Your task to perform on an android device: change the upload size in google photos Image 0: 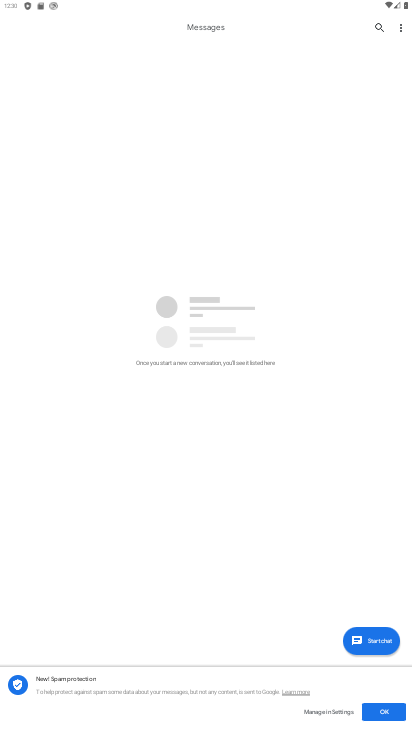
Step 0: press home button
Your task to perform on an android device: change the upload size in google photos Image 1: 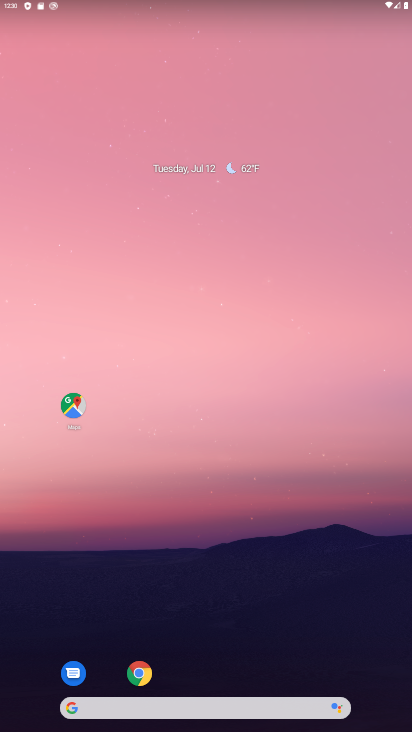
Step 1: drag from (197, 681) to (234, 207)
Your task to perform on an android device: change the upload size in google photos Image 2: 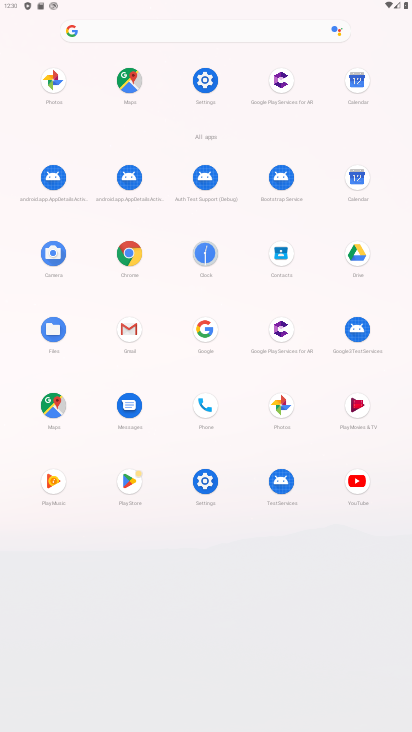
Step 2: click (278, 407)
Your task to perform on an android device: change the upload size in google photos Image 3: 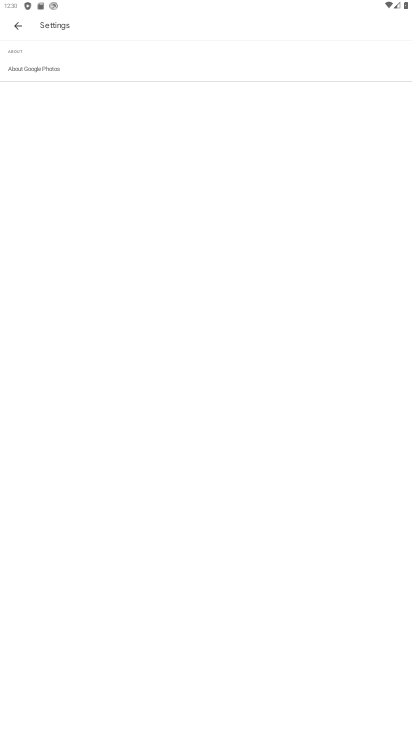
Step 3: click (17, 27)
Your task to perform on an android device: change the upload size in google photos Image 4: 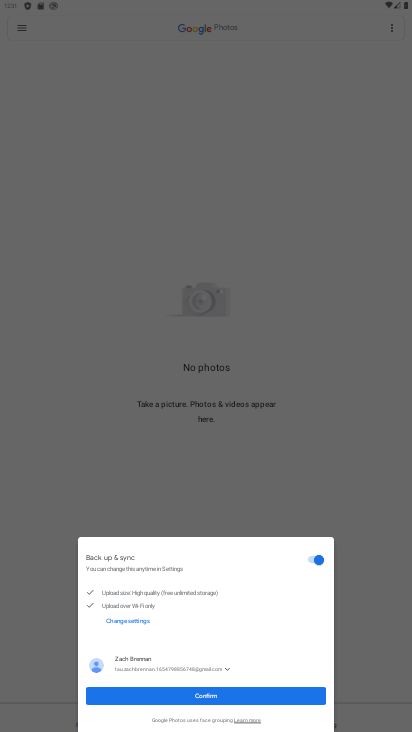
Step 4: click (211, 691)
Your task to perform on an android device: change the upload size in google photos Image 5: 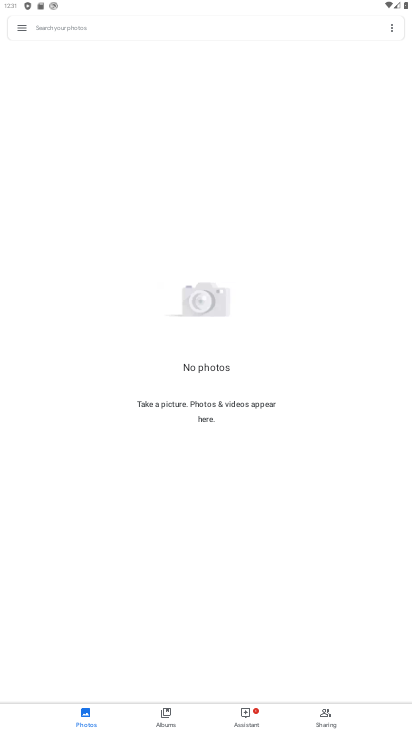
Step 5: click (24, 26)
Your task to perform on an android device: change the upload size in google photos Image 6: 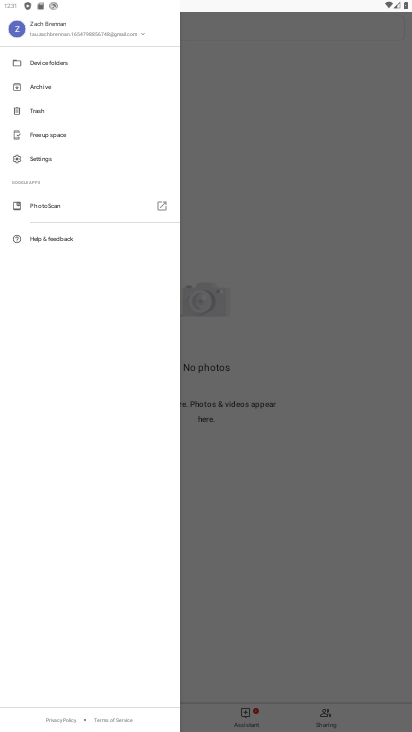
Step 6: click (54, 164)
Your task to perform on an android device: change the upload size in google photos Image 7: 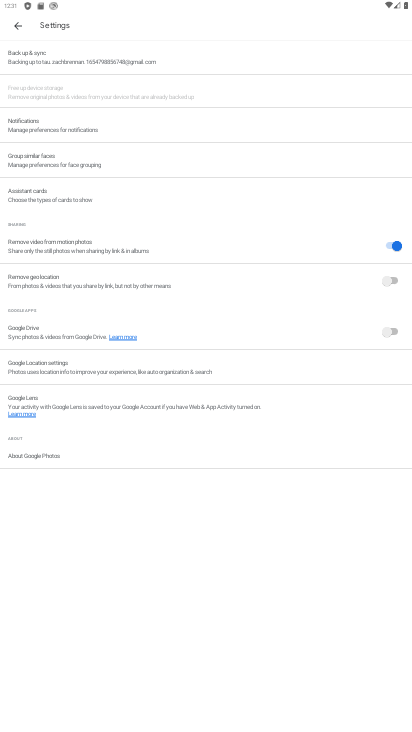
Step 7: click (74, 54)
Your task to perform on an android device: change the upload size in google photos Image 8: 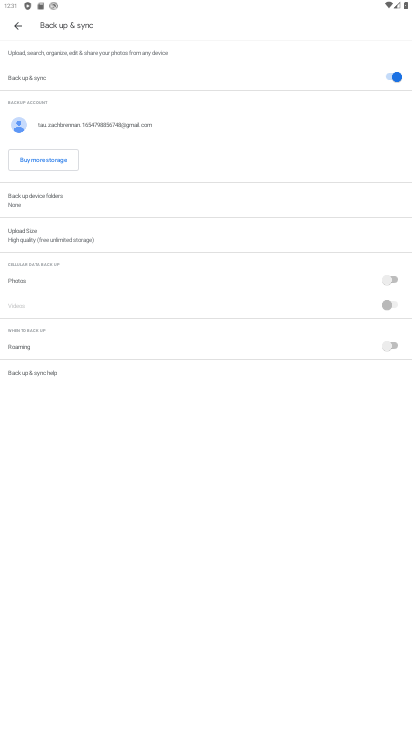
Step 8: click (41, 231)
Your task to perform on an android device: change the upload size in google photos Image 9: 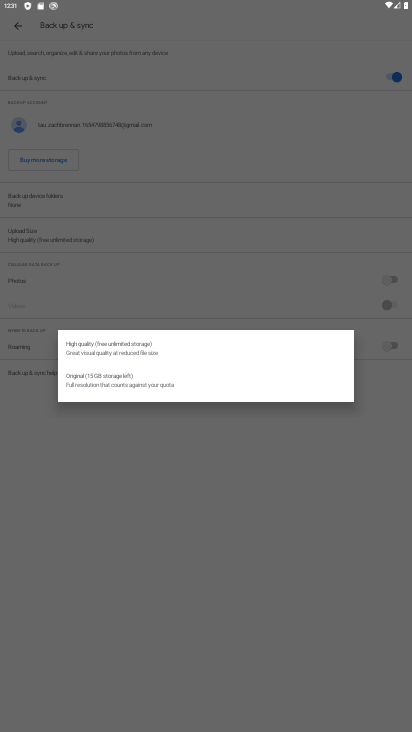
Step 9: click (157, 354)
Your task to perform on an android device: change the upload size in google photos Image 10: 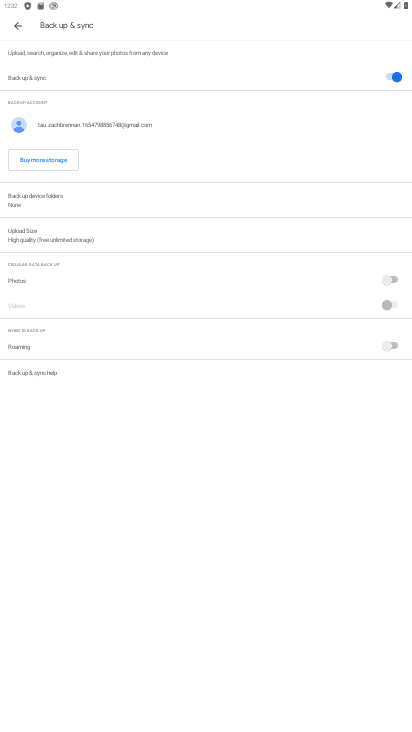
Step 10: task complete